Your task to perform on an android device: change notifications settings Image 0: 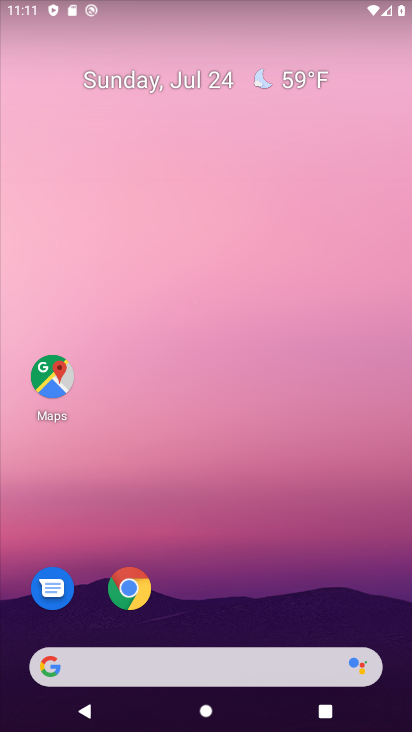
Step 0: drag from (344, 592) to (159, 7)
Your task to perform on an android device: change notifications settings Image 1: 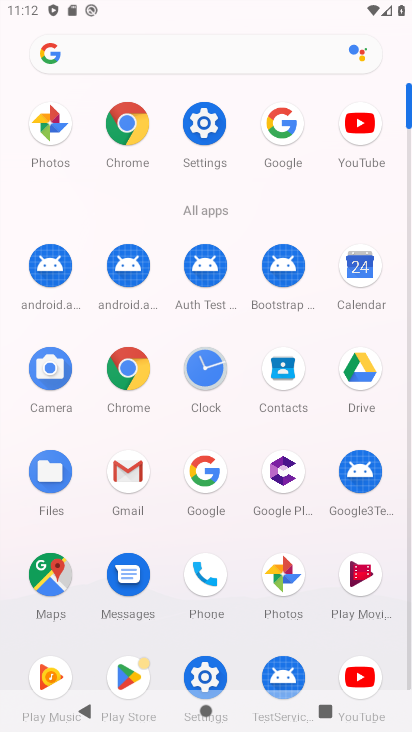
Step 1: click (218, 128)
Your task to perform on an android device: change notifications settings Image 2: 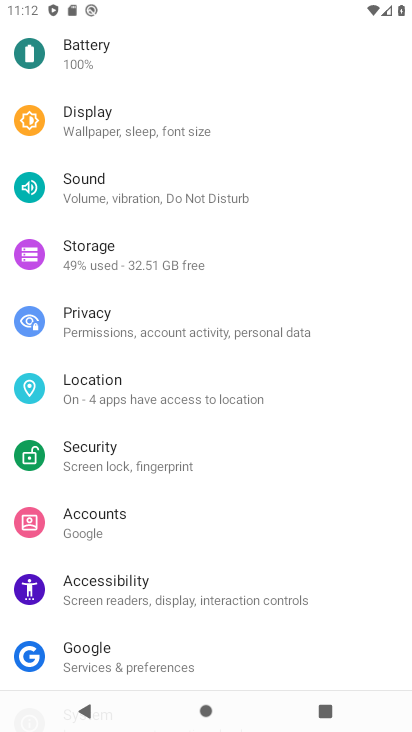
Step 2: drag from (141, 84) to (204, 638)
Your task to perform on an android device: change notifications settings Image 3: 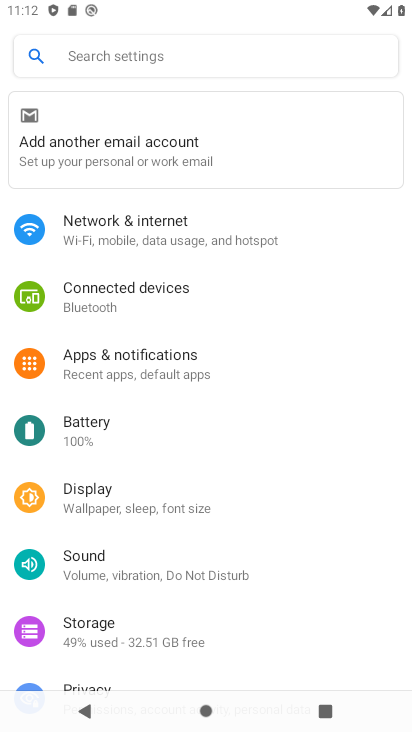
Step 3: click (177, 358)
Your task to perform on an android device: change notifications settings Image 4: 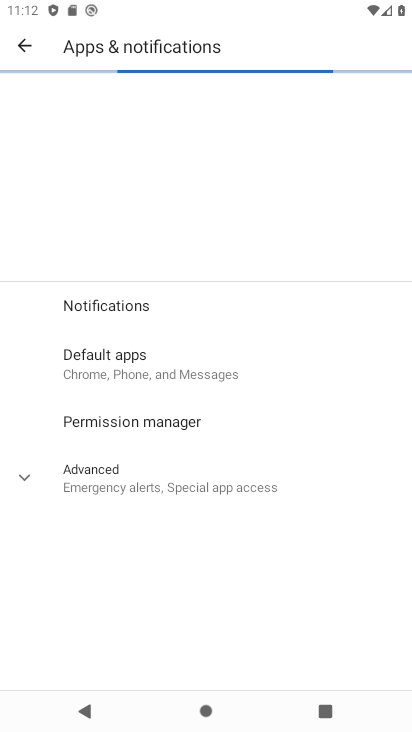
Step 4: task complete